Your task to perform on an android device: open the mobile data screen to see how much data has been used Image 0: 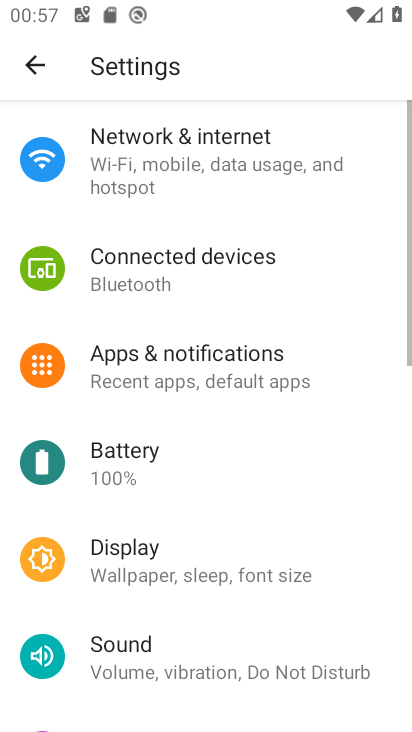
Step 0: drag from (329, 4) to (276, 653)
Your task to perform on an android device: open the mobile data screen to see how much data has been used Image 1: 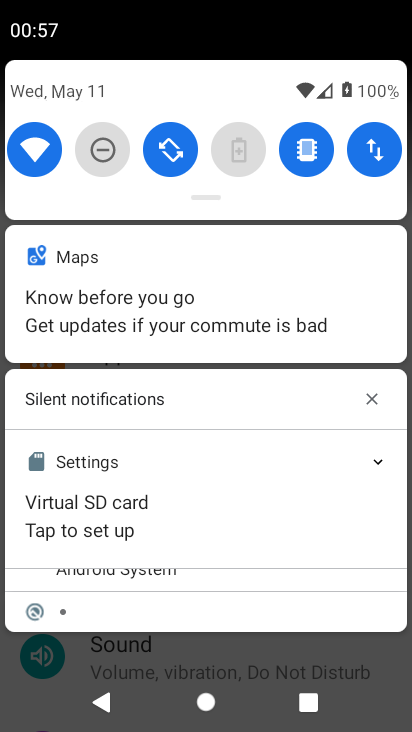
Step 1: click (363, 147)
Your task to perform on an android device: open the mobile data screen to see how much data has been used Image 2: 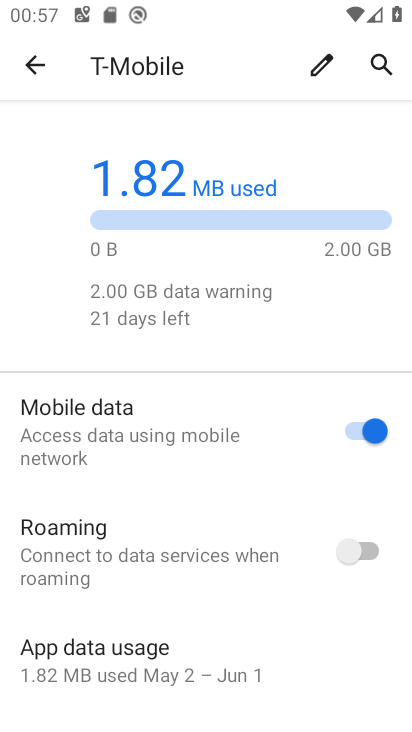
Step 2: task complete